Your task to perform on an android device: turn on priority inbox in the gmail app Image 0: 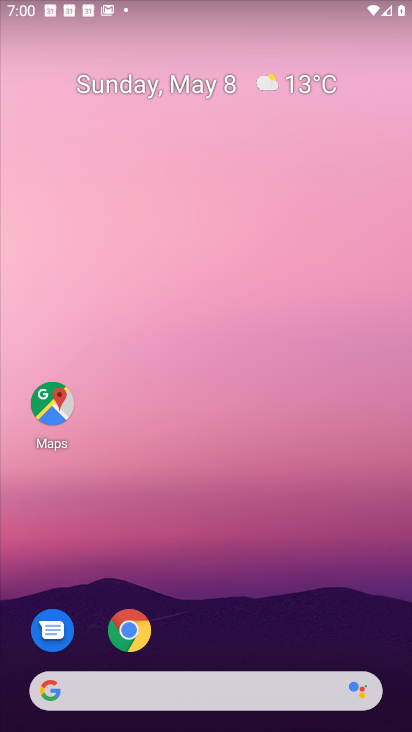
Step 0: drag from (249, 587) to (244, 166)
Your task to perform on an android device: turn on priority inbox in the gmail app Image 1: 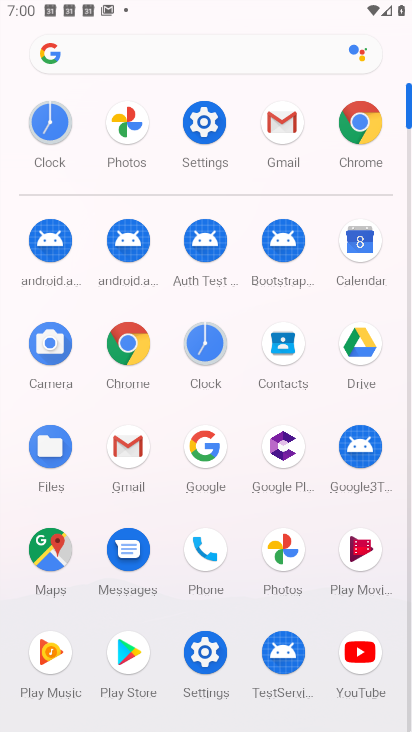
Step 1: click (130, 445)
Your task to perform on an android device: turn on priority inbox in the gmail app Image 2: 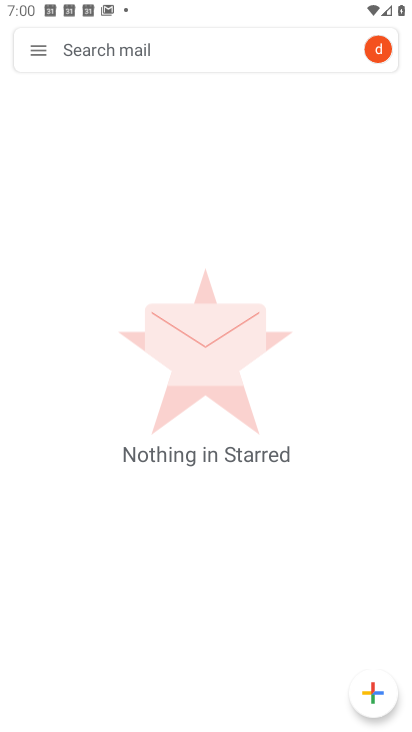
Step 2: click (31, 54)
Your task to perform on an android device: turn on priority inbox in the gmail app Image 3: 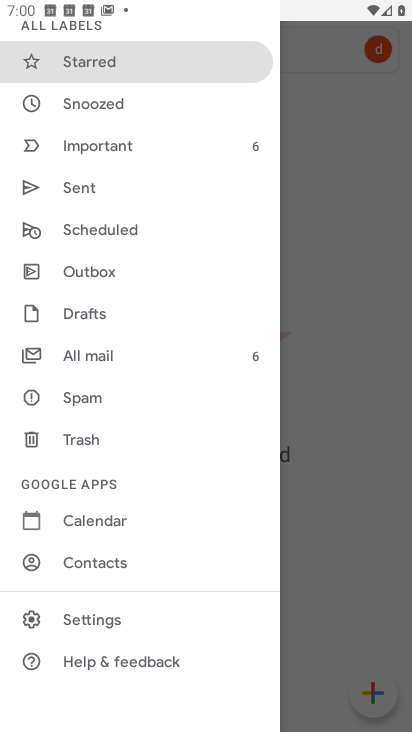
Step 3: click (104, 611)
Your task to perform on an android device: turn on priority inbox in the gmail app Image 4: 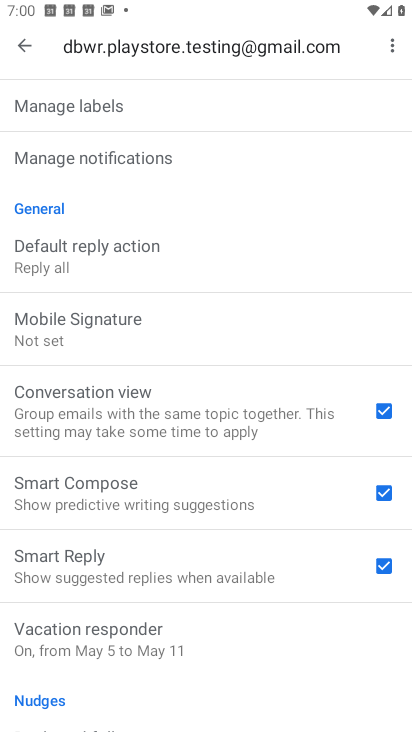
Step 4: drag from (177, 223) to (236, 671)
Your task to perform on an android device: turn on priority inbox in the gmail app Image 5: 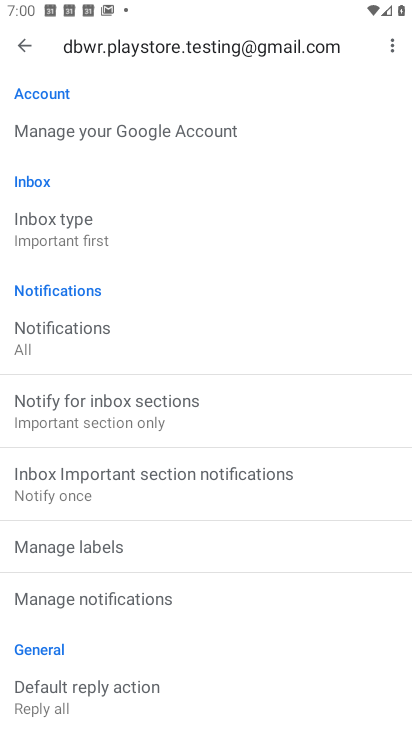
Step 5: drag from (152, 178) to (150, 452)
Your task to perform on an android device: turn on priority inbox in the gmail app Image 6: 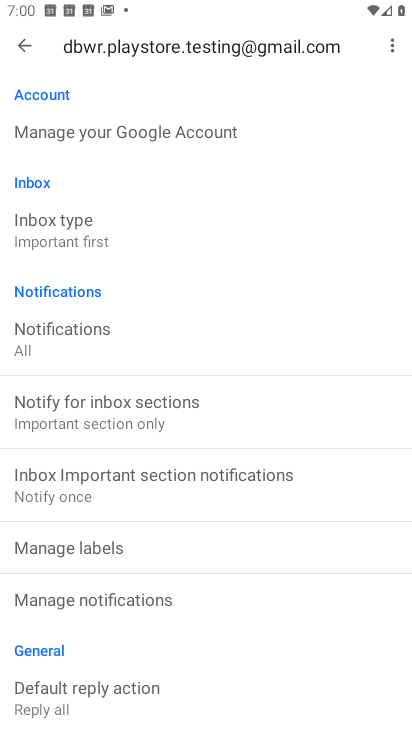
Step 6: click (24, 45)
Your task to perform on an android device: turn on priority inbox in the gmail app Image 7: 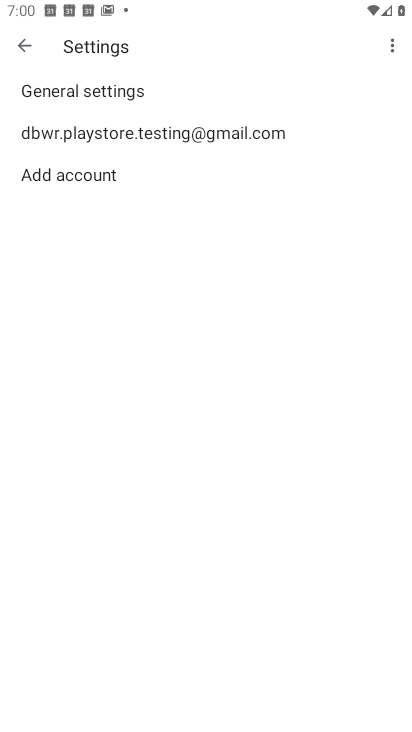
Step 7: click (58, 91)
Your task to perform on an android device: turn on priority inbox in the gmail app Image 8: 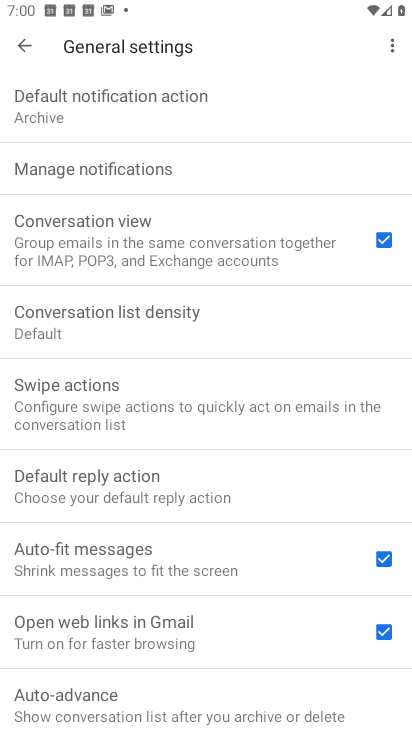
Step 8: drag from (215, 186) to (243, 501)
Your task to perform on an android device: turn on priority inbox in the gmail app Image 9: 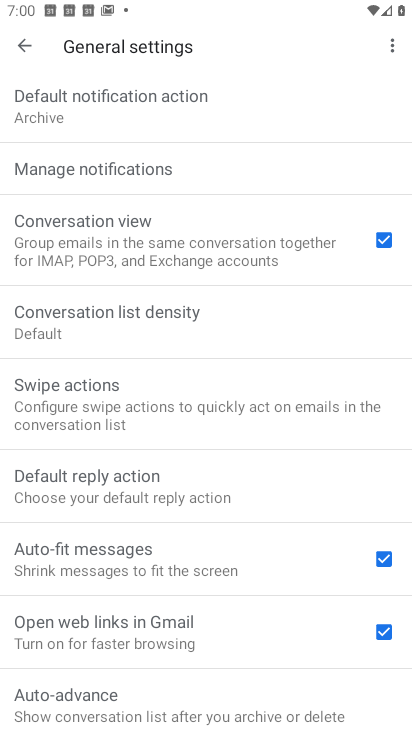
Step 9: drag from (191, 141) to (210, 389)
Your task to perform on an android device: turn on priority inbox in the gmail app Image 10: 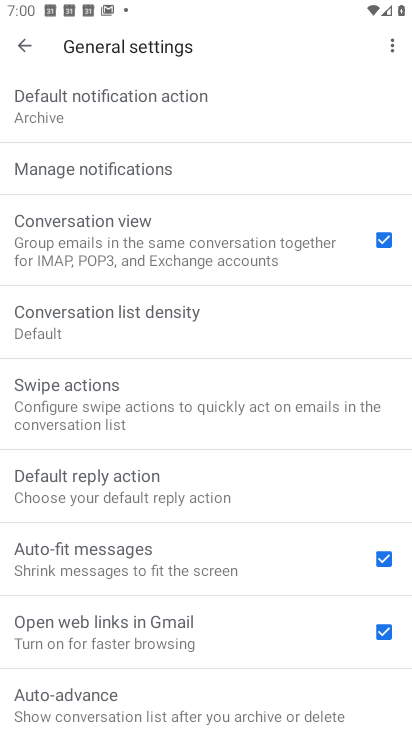
Step 10: click (24, 45)
Your task to perform on an android device: turn on priority inbox in the gmail app Image 11: 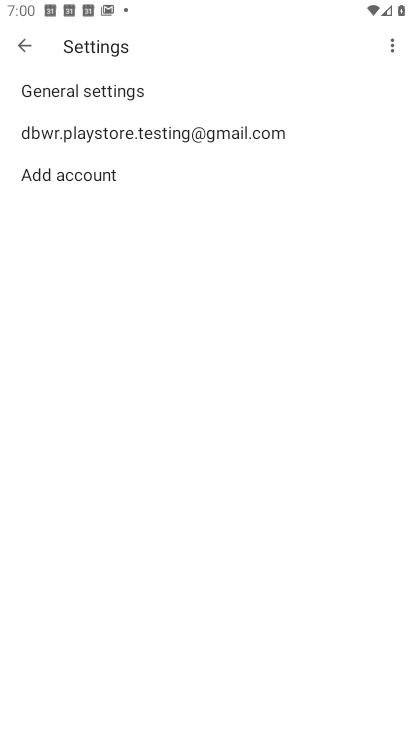
Step 11: click (77, 131)
Your task to perform on an android device: turn on priority inbox in the gmail app Image 12: 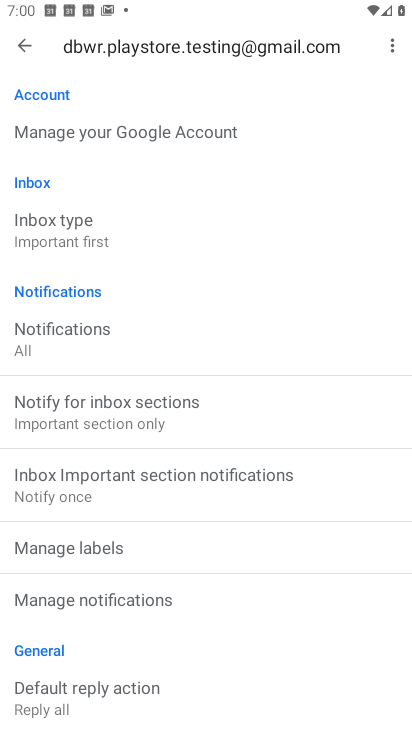
Step 12: click (62, 236)
Your task to perform on an android device: turn on priority inbox in the gmail app Image 13: 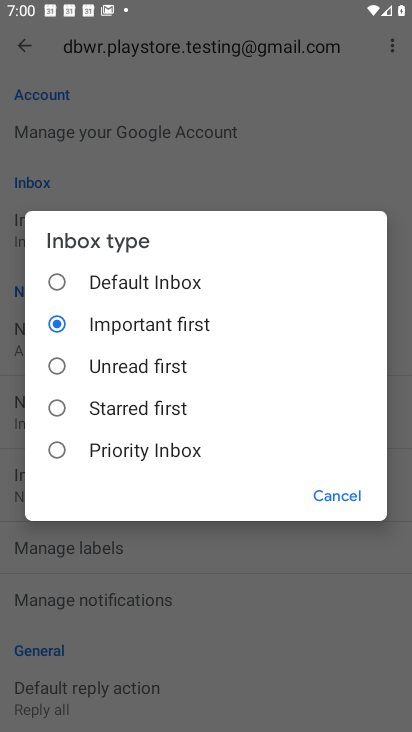
Step 13: click (58, 450)
Your task to perform on an android device: turn on priority inbox in the gmail app Image 14: 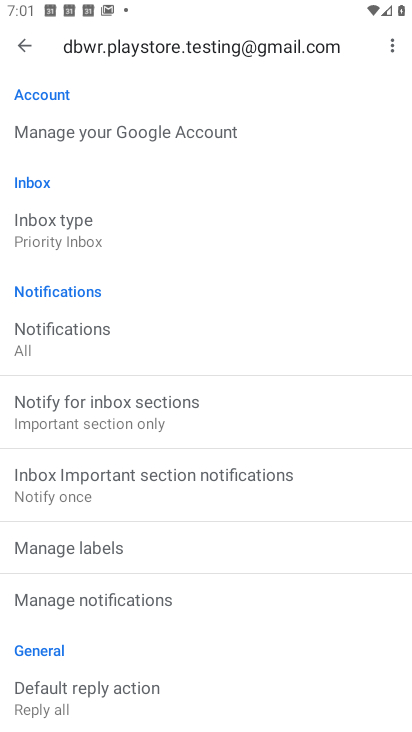
Step 14: task complete